Your task to perform on an android device: Open Maps and search for coffee Image 0: 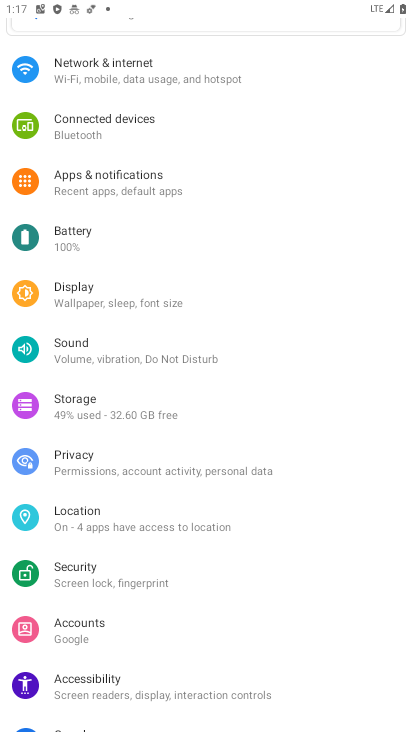
Step 0: press home button
Your task to perform on an android device: Open Maps and search for coffee Image 1: 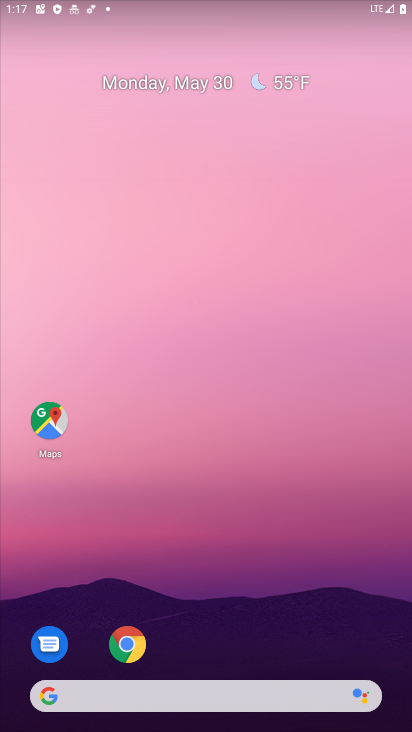
Step 1: click (42, 408)
Your task to perform on an android device: Open Maps and search for coffee Image 2: 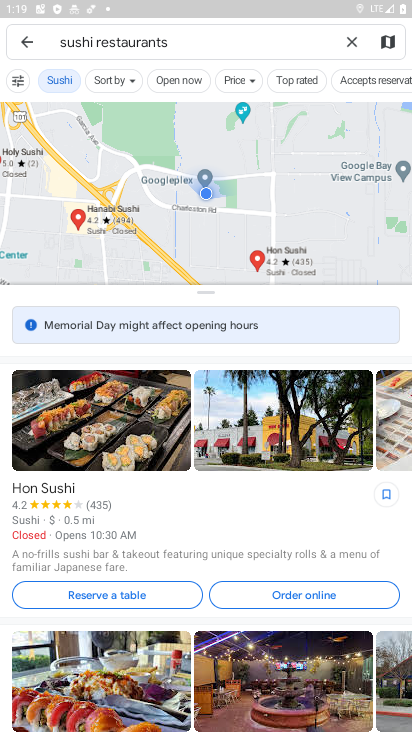
Step 2: click (351, 40)
Your task to perform on an android device: Open Maps and search for coffee Image 3: 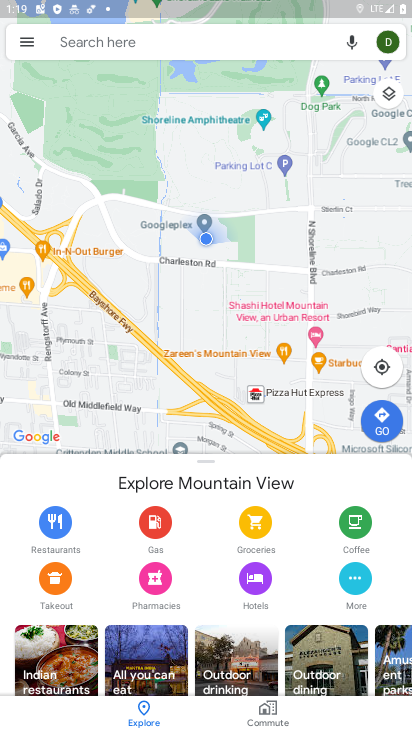
Step 3: click (293, 40)
Your task to perform on an android device: Open Maps and search for coffee Image 4: 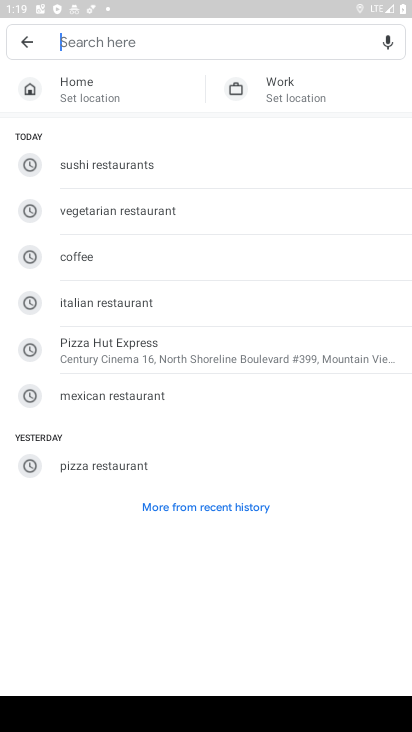
Step 4: click (197, 259)
Your task to perform on an android device: Open Maps and search for coffee Image 5: 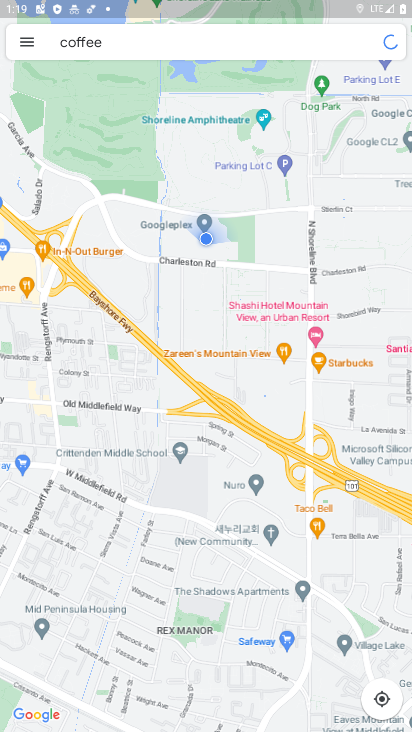
Step 5: task complete